Your task to perform on an android device: find snoozed emails in the gmail app Image 0: 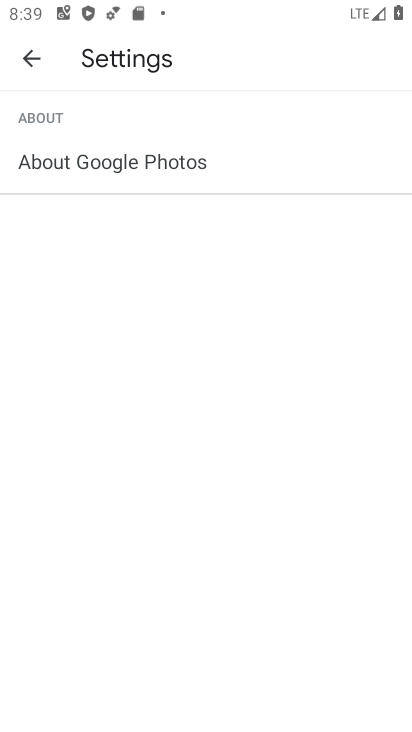
Step 0: press home button
Your task to perform on an android device: find snoozed emails in the gmail app Image 1: 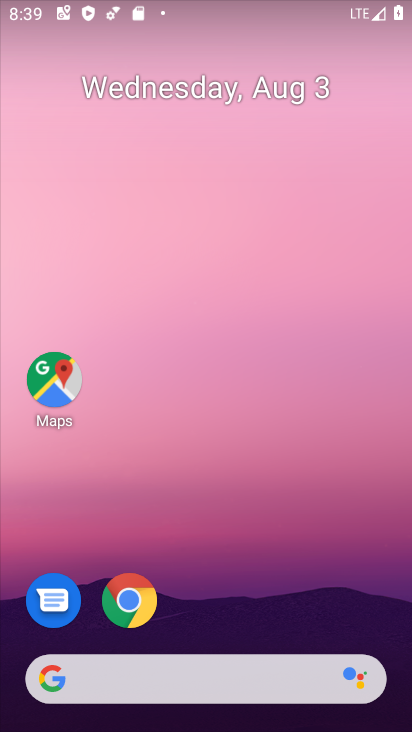
Step 1: drag from (225, 582) to (245, 2)
Your task to perform on an android device: find snoozed emails in the gmail app Image 2: 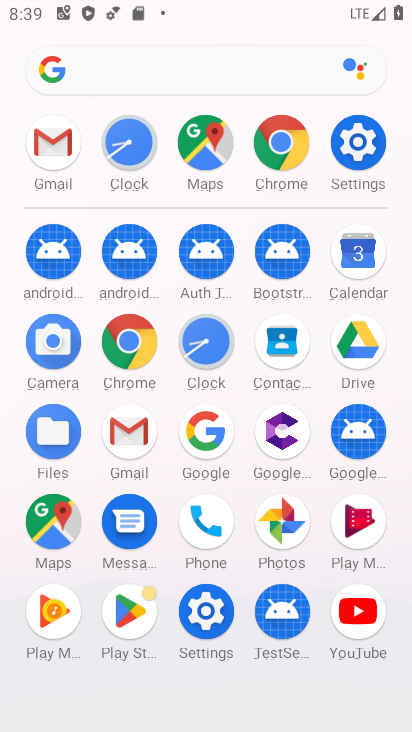
Step 2: click (122, 433)
Your task to perform on an android device: find snoozed emails in the gmail app Image 3: 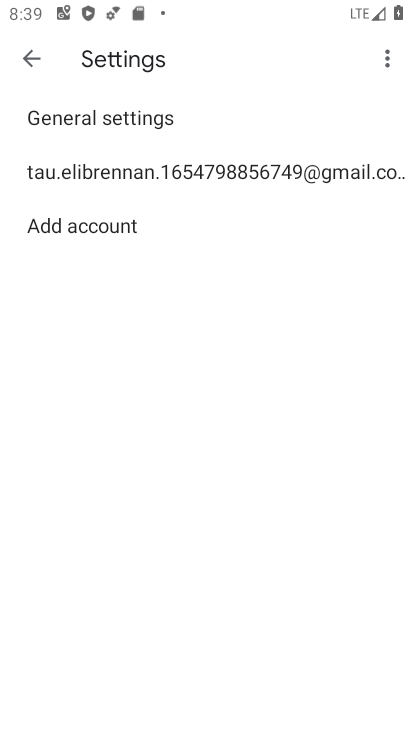
Step 3: click (32, 58)
Your task to perform on an android device: find snoozed emails in the gmail app Image 4: 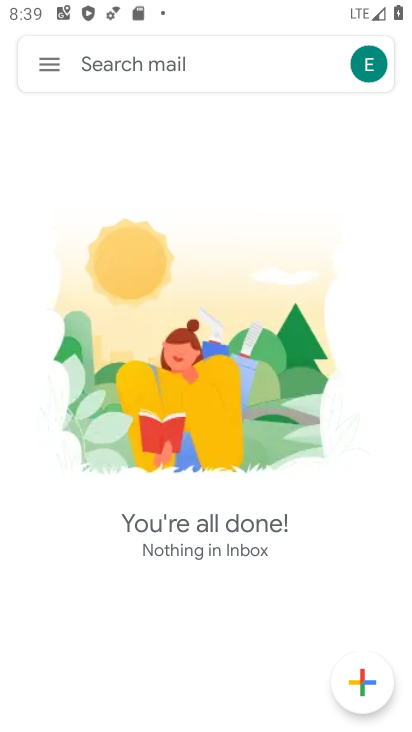
Step 4: click (43, 75)
Your task to perform on an android device: find snoozed emails in the gmail app Image 5: 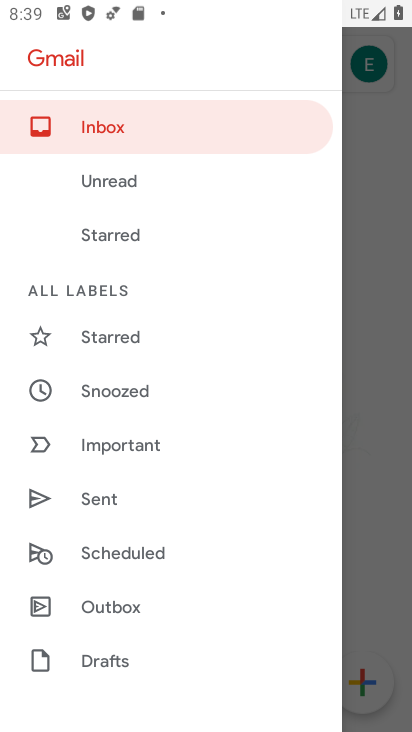
Step 5: click (119, 399)
Your task to perform on an android device: find snoozed emails in the gmail app Image 6: 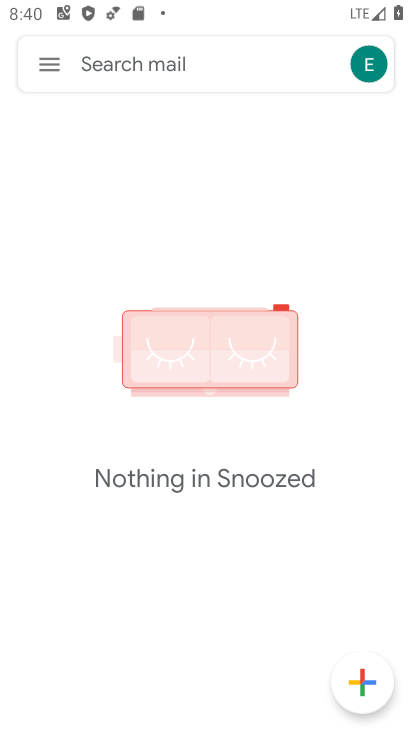
Step 6: task complete